Your task to perform on an android device: turn on javascript in the chrome app Image 0: 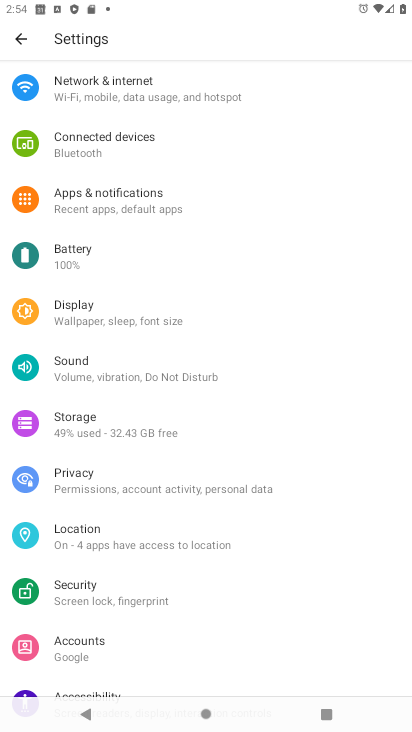
Step 0: press home button
Your task to perform on an android device: turn on javascript in the chrome app Image 1: 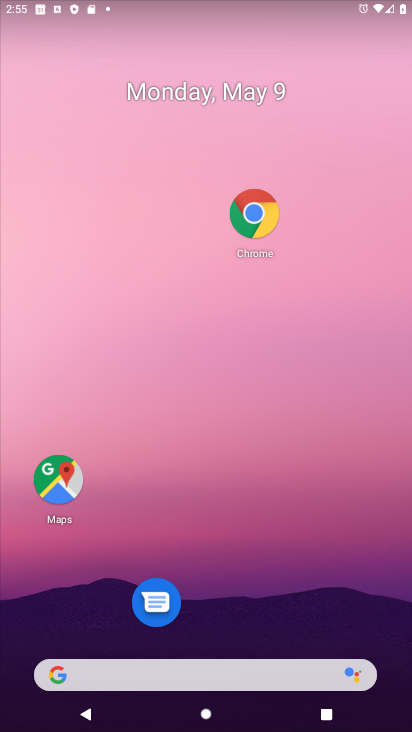
Step 1: click (239, 211)
Your task to perform on an android device: turn on javascript in the chrome app Image 2: 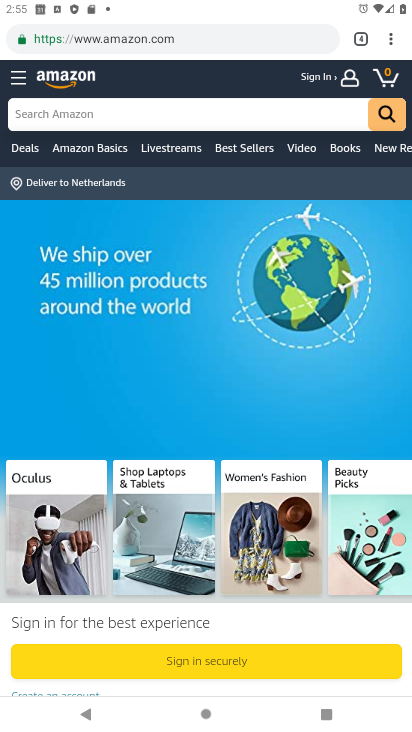
Step 2: click (399, 40)
Your task to perform on an android device: turn on javascript in the chrome app Image 3: 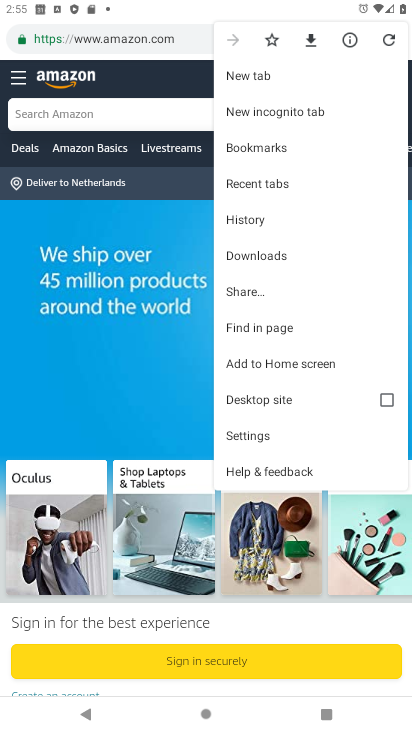
Step 3: click (276, 438)
Your task to perform on an android device: turn on javascript in the chrome app Image 4: 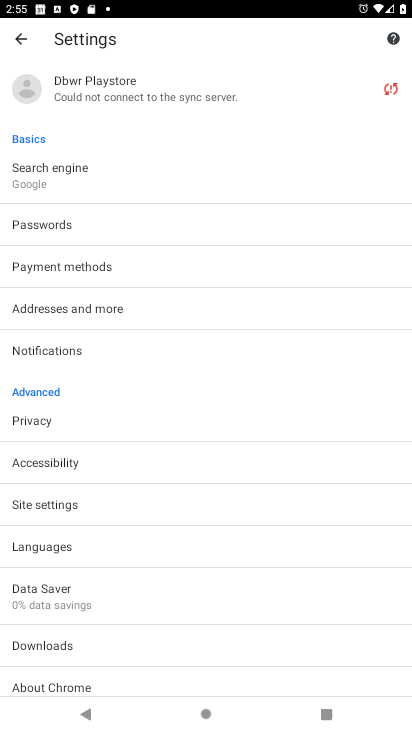
Step 4: click (153, 505)
Your task to perform on an android device: turn on javascript in the chrome app Image 5: 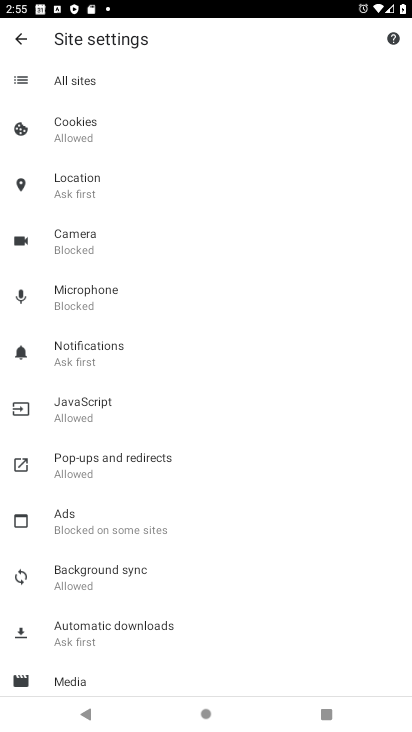
Step 5: click (152, 420)
Your task to perform on an android device: turn on javascript in the chrome app Image 6: 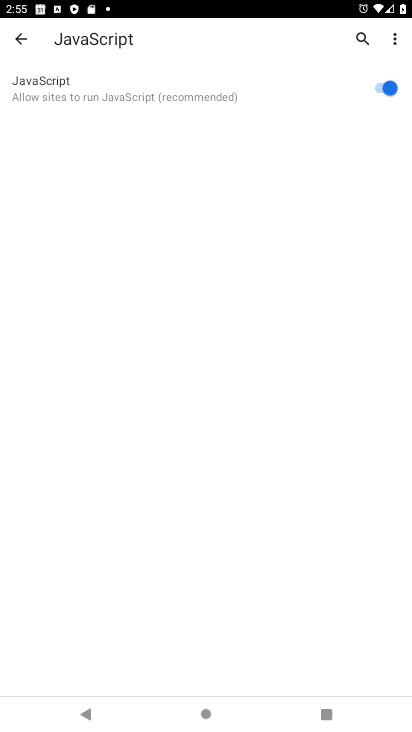
Step 6: task complete